Your task to perform on an android device: Play the last video I watched on Youtube Image 0: 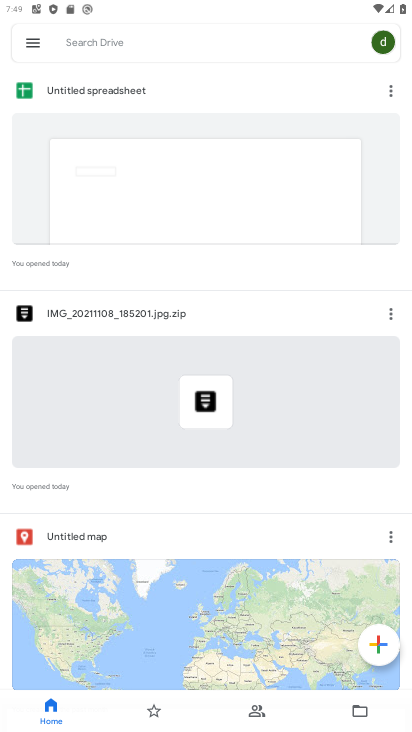
Step 0: press home button
Your task to perform on an android device: Play the last video I watched on Youtube Image 1: 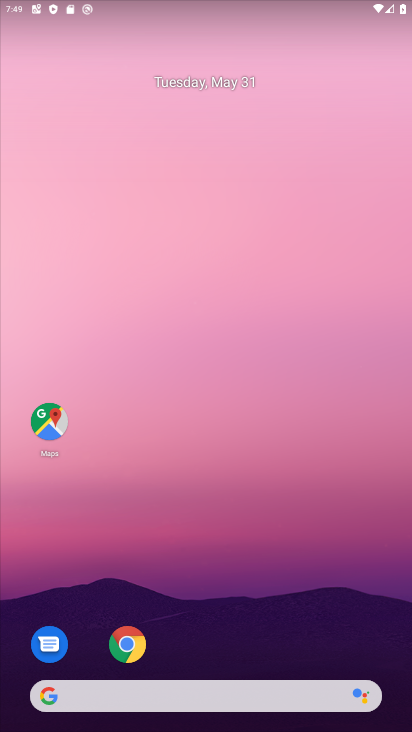
Step 1: drag from (249, 714) to (267, 0)
Your task to perform on an android device: Play the last video I watched on Youtube Image 2: 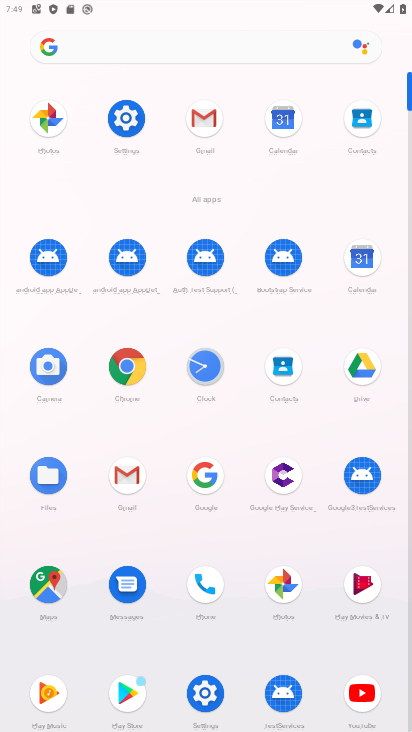
Step 2: click (376, 681)
Your task to perform on an android device: Play the last video I watched on Youtube Image 3: 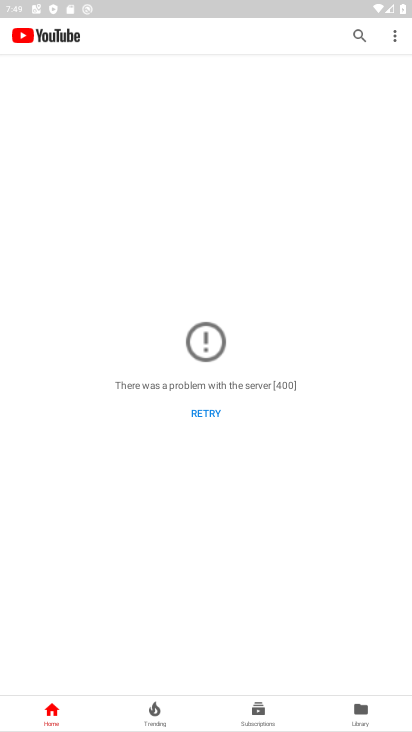
Step 3: click (368, 708)
Your task to perform on an android device: Play the last video I watched on Youtube Image 4: 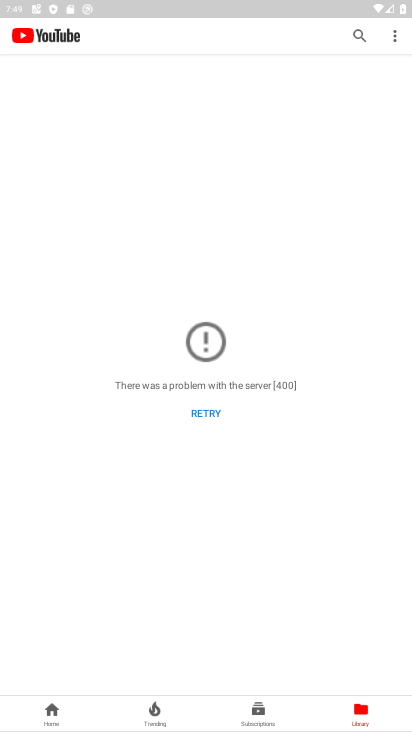
Step 4: task complete